Your task to perform on an android device: check storage Image 0: 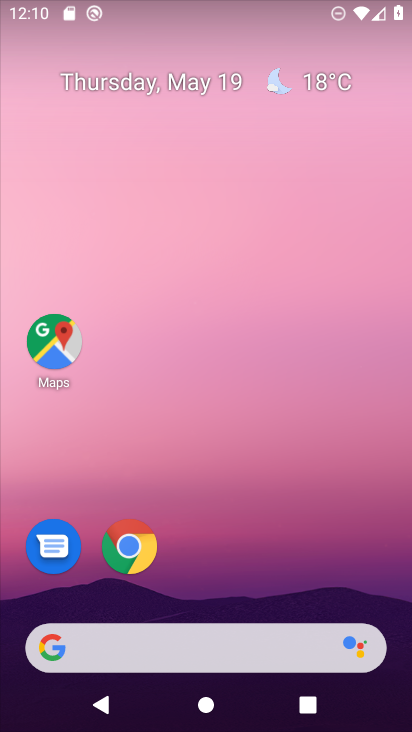
Step 0: drag from (223, 724) to (220, 156)
Your task to perform on an android device: check storage Image 1: 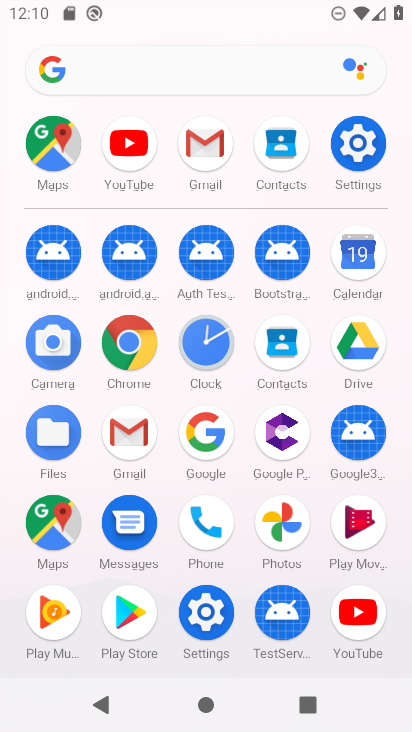
Step 1: click (360, 135)
Your task to perform on an android device: check storage Image 2: 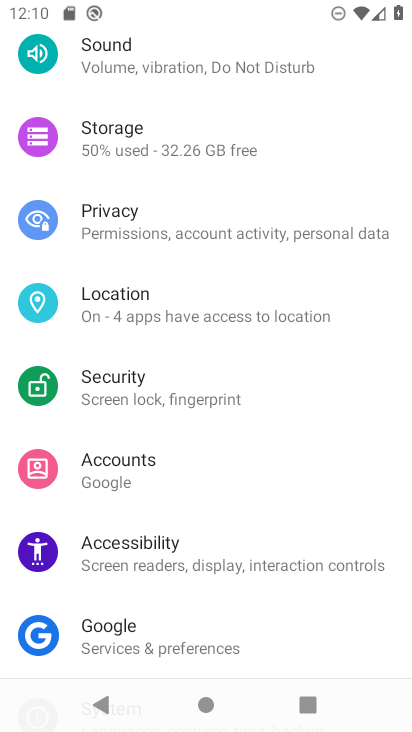
Step 2: click (138, 141)
Your task to perform on an android device: check storage Image 3: 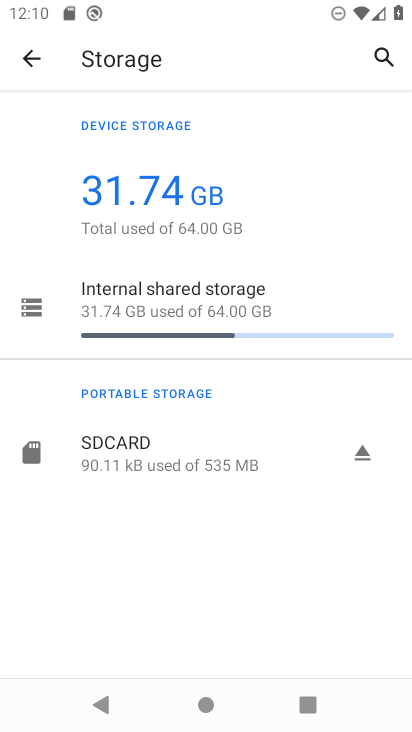
Step 3: task complete